Your task to perform on an android device: What's on my calendar today? Image 0: 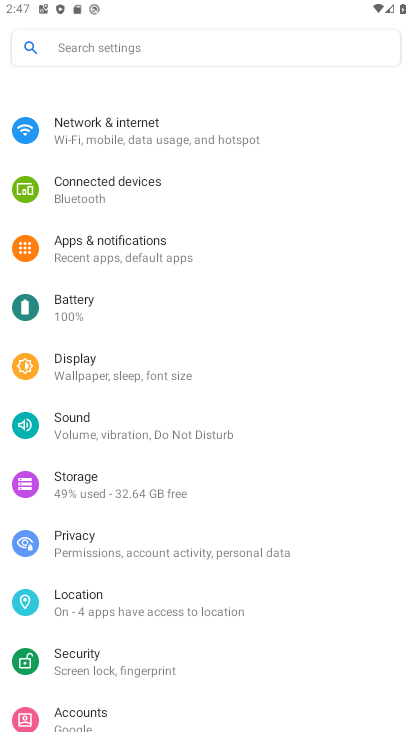
Step 0: press home button
Your task to perform on an android device: What's on my calendar today? Image 1: 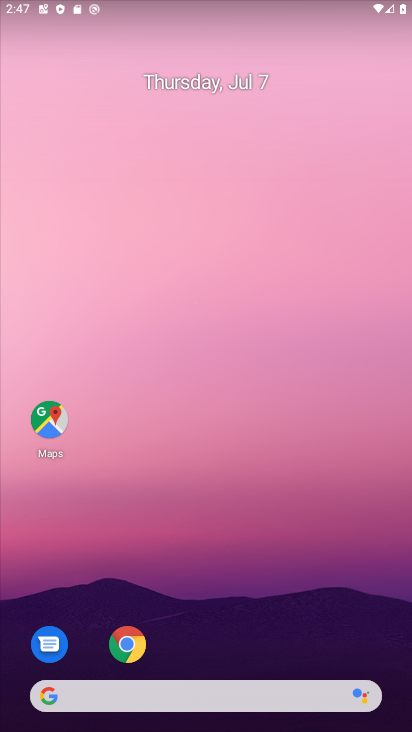
Step 1: drag from (270, 623) to (291, 161)
Your task to perform on an android device: What's on my calendar today? Image 2: 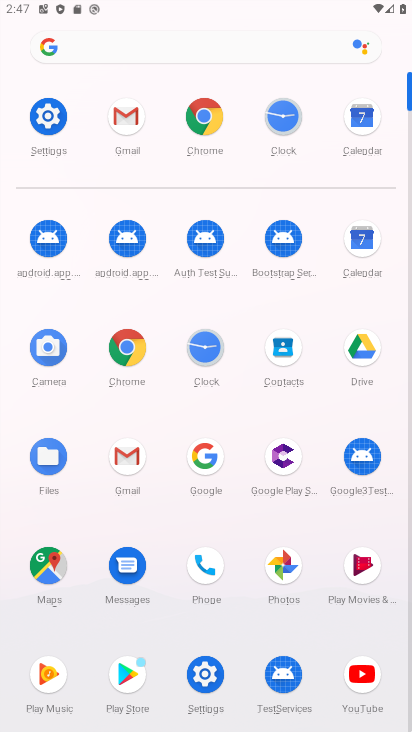
Step 2: click (362, 245)
Your task to perform on an android device: What's on my calendar today? Image 3: 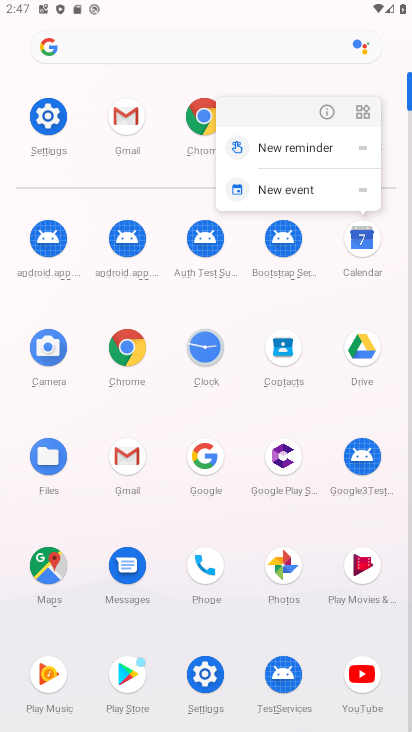
Step 3: click (362, 245)
Your task to perform on an android device: What's on my calendar today? Image 4: 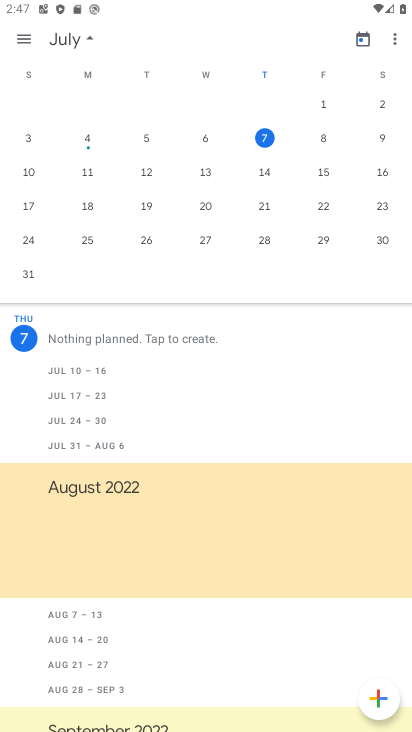
Step 4: click (265, 135)
Your task to perform on an android device: What's on my calendar today? Image 5: 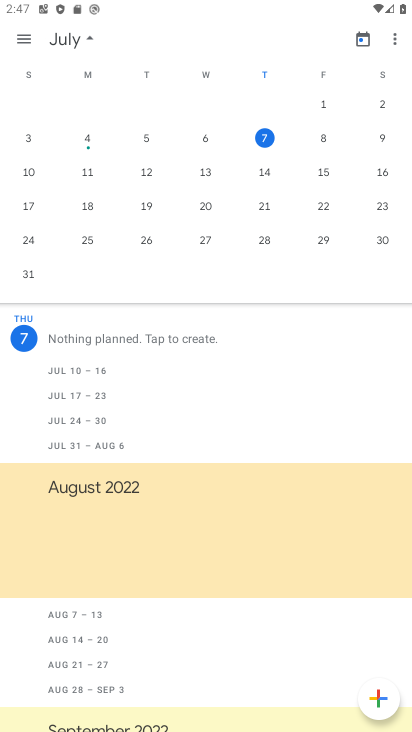
Step 5: task complete